Your task to perform on an android device: Open location settings Image 0: 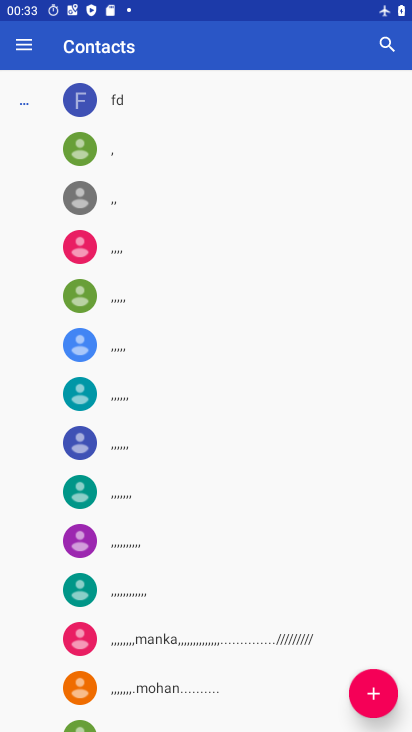
Step 0: press home button
Your task to perform on an android device: Open location settings Image 1: 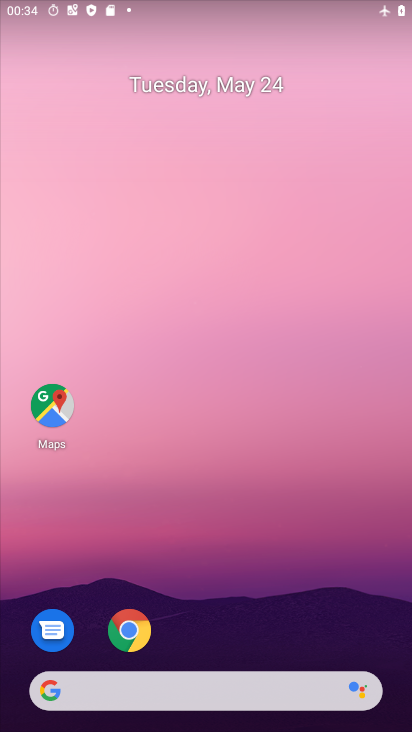
Step 1: drag from (233, 661) to (138, 4)
Your task to perform on an android device: Open location settings Image 2: 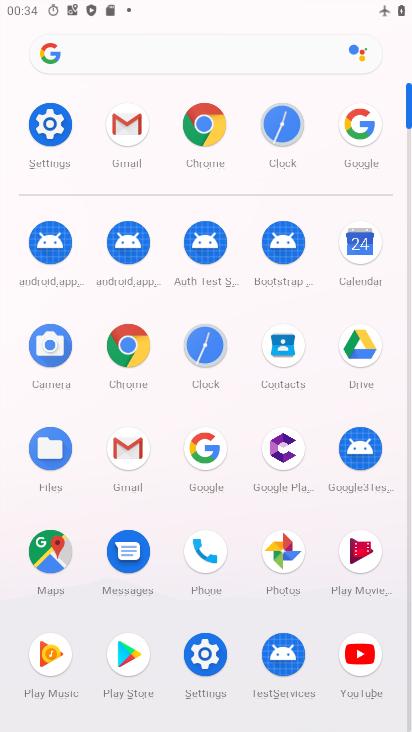
Step 2: click (46, 119)
Your task to perform on an android device: Open location settings Image 3: 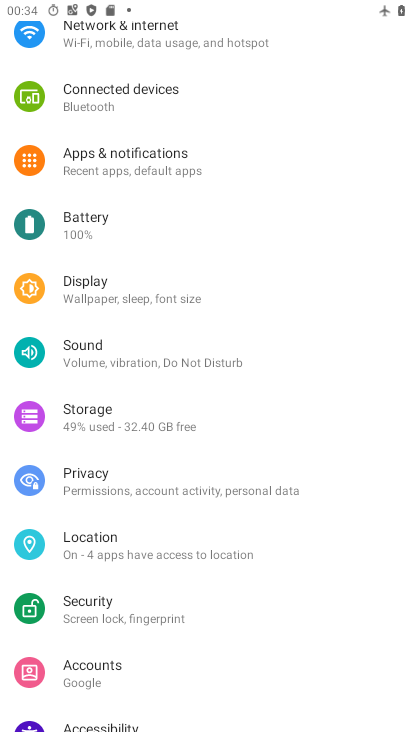
Step 3: click (80, 548)
Your task to perform on an android device: Open location settings Image 4: 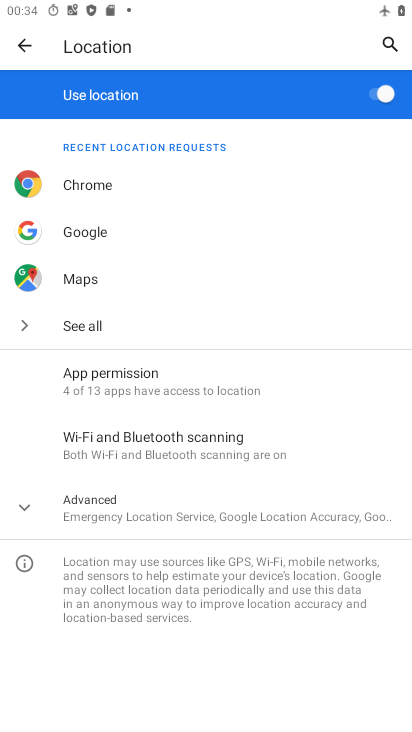
Step 4: task complete